Your task to perform on an android device: Go to display settings Image 0: 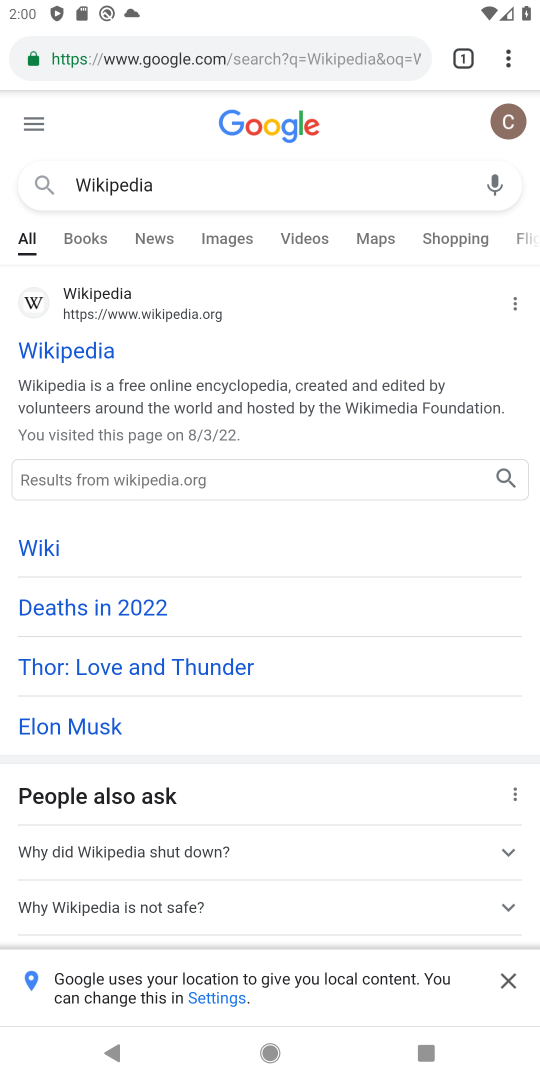
Step 0: press home button
Your task to perform on an android device: Go to display settings Image 1: 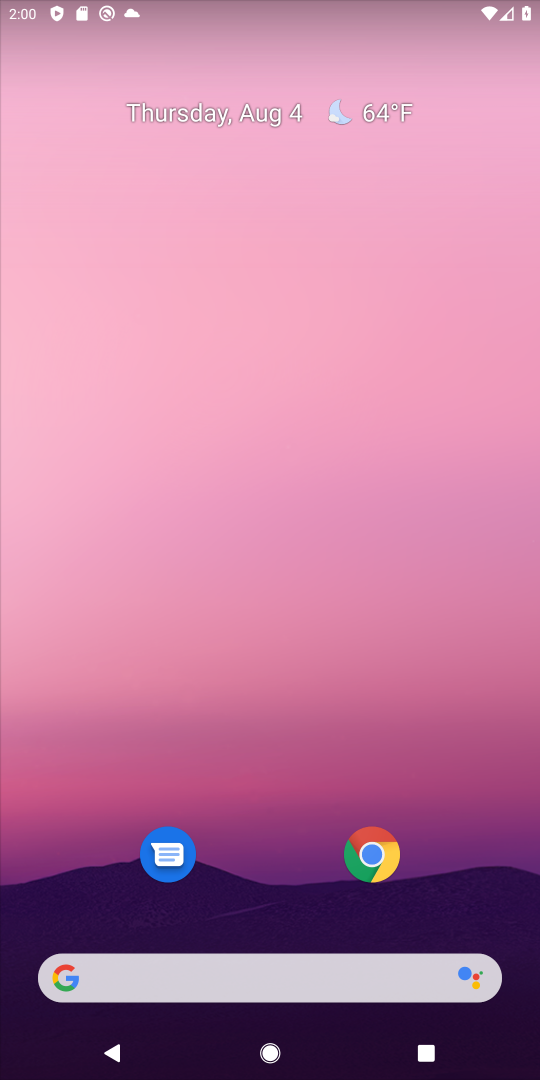
Step 1: drag from (294, 779) to (351, 433)
Your task to perform on an android device: Go to display settings Image 2: 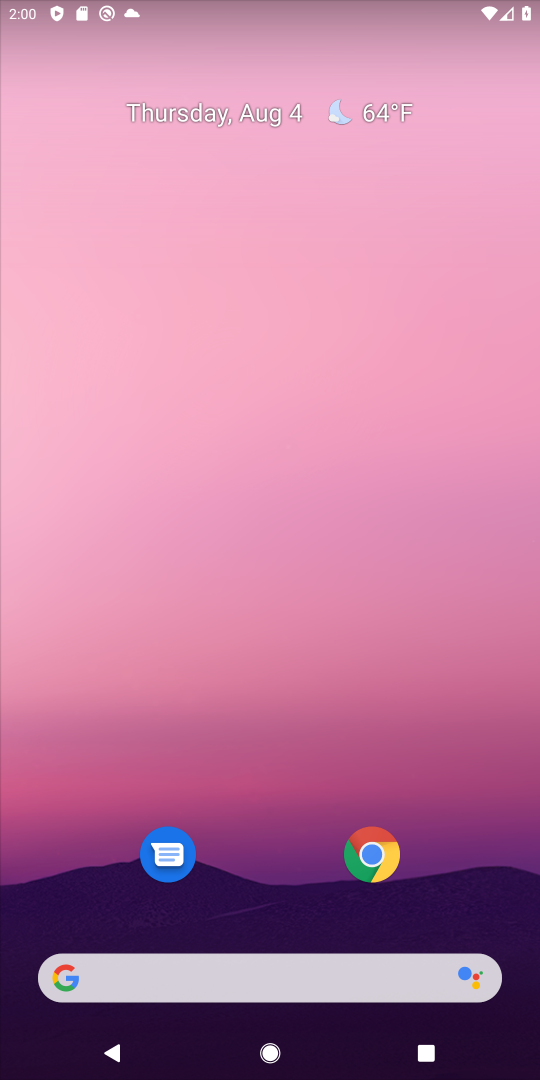
Step 2: drag from (305, 820) to (367, 465)
Your task to perform on an android device: Go to display settings Image 3: 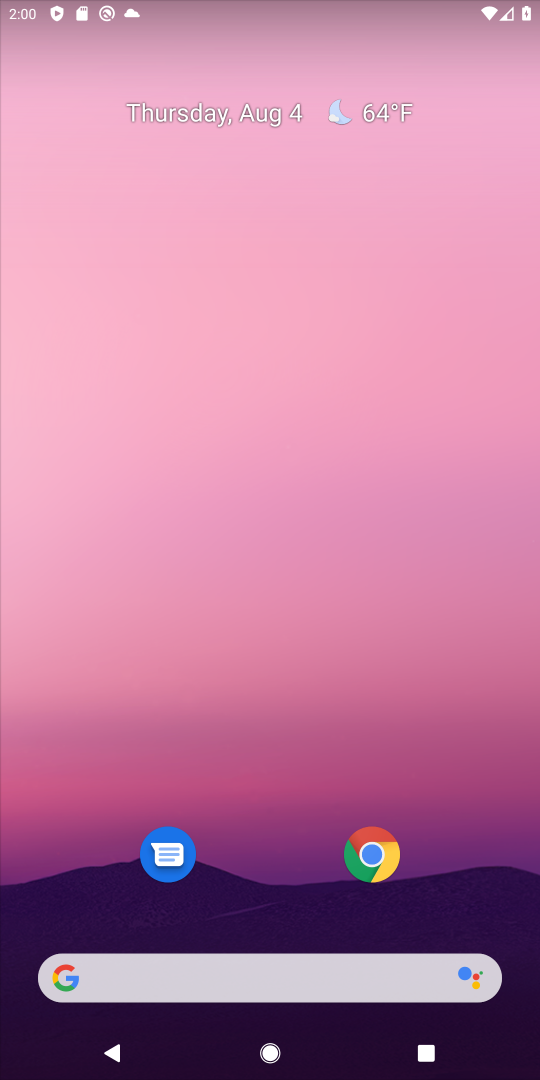
Step 3: drag from (298, 668) to (319, 293)
Your task to perform on an android device: Go to display settings Image 4: 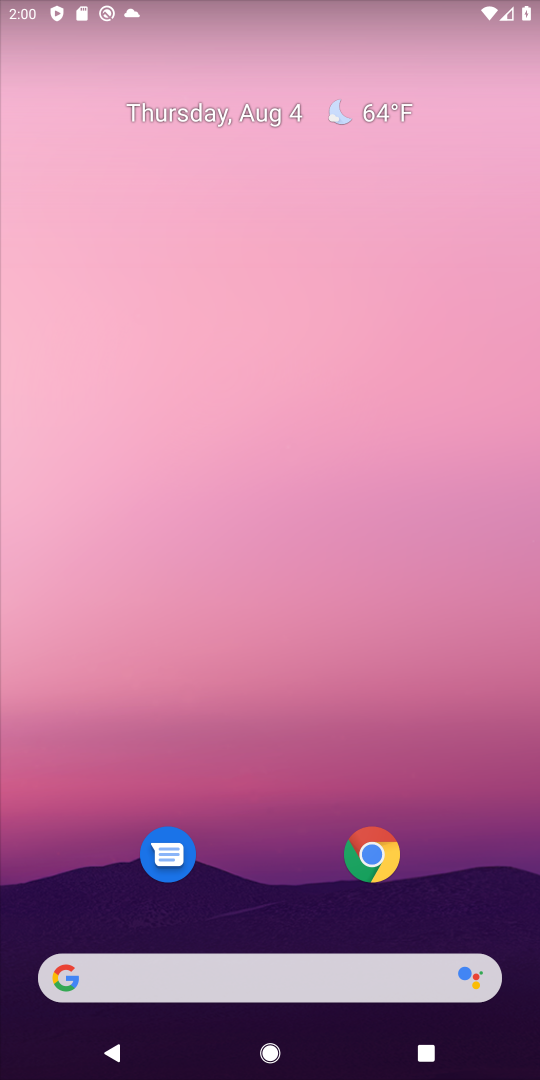
Step 4: drag from (253, 742) to (232, 214)
Your task to perform on an android device: Go to display settings Image 5: 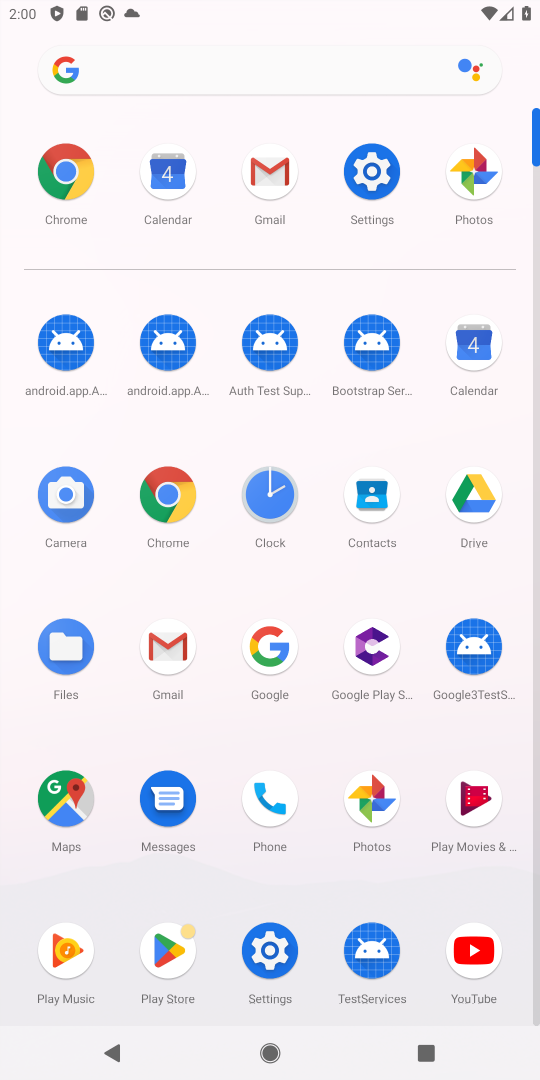
Step 5: click (365, 168)
Your task to perform on an android device: Go to display settings Image 6: 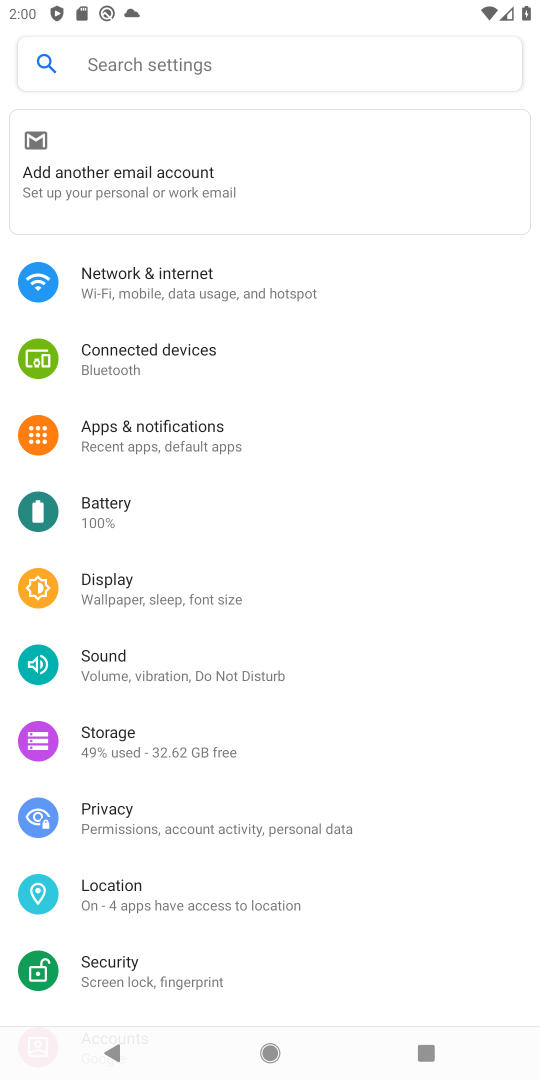
Step 6: click (130, 578)
Your task to perform on an android device: Go to display settings Image 7: 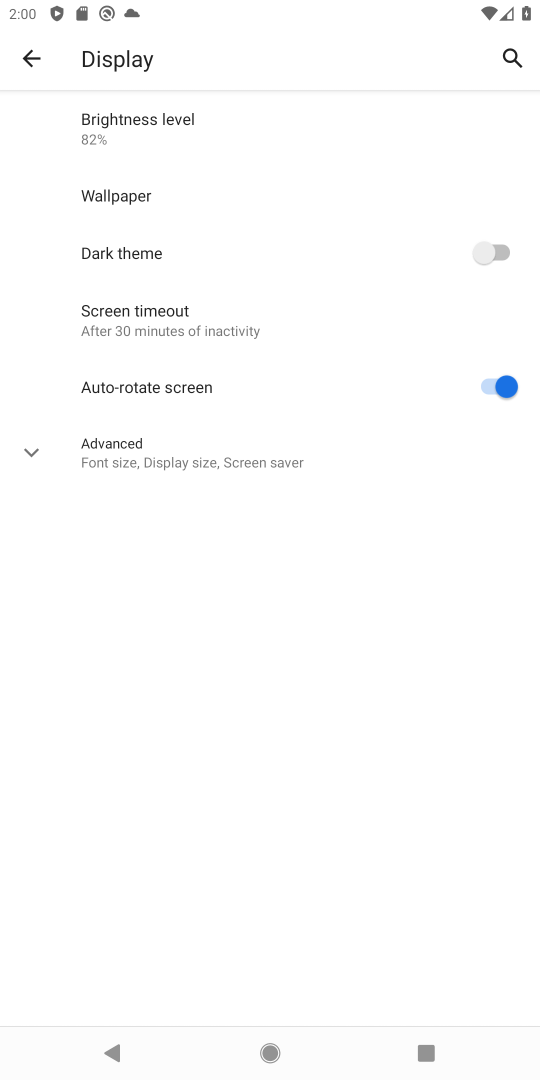
Step 7: task complete